Your task to perform on an android device: Go to battery settings Image 0: 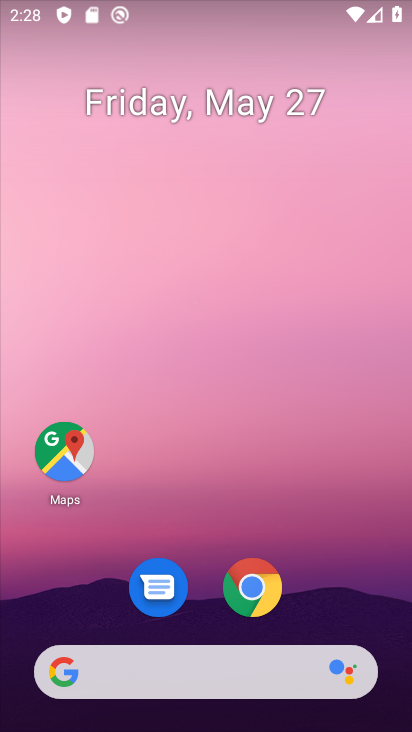
Step 0: press home button
Your task to perform on an android device: Go to battery settings Image 1: 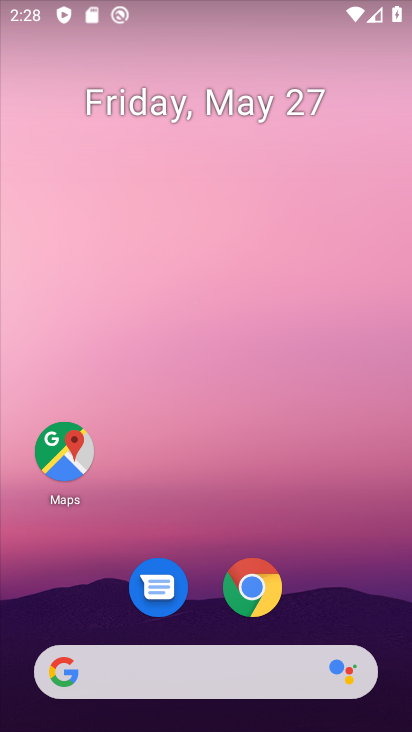
Step 1: drag from (350, 614) to (372, 216)
Your task to perform on an android device: Go to battery settings Image 2: 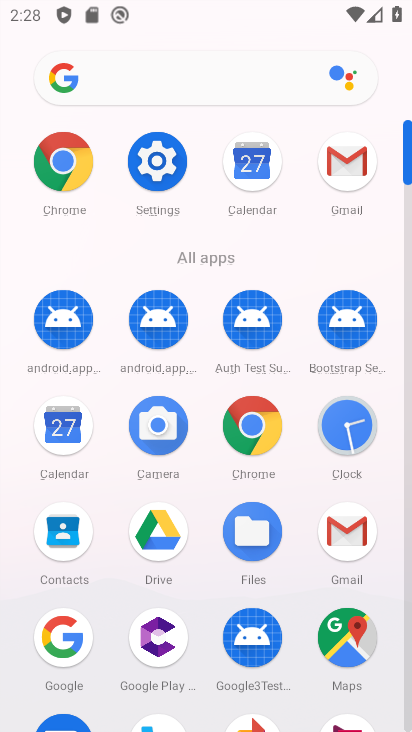
Step 2: click (151, 157)
Your task to perform on an android device: Go to battery settings Image 3: 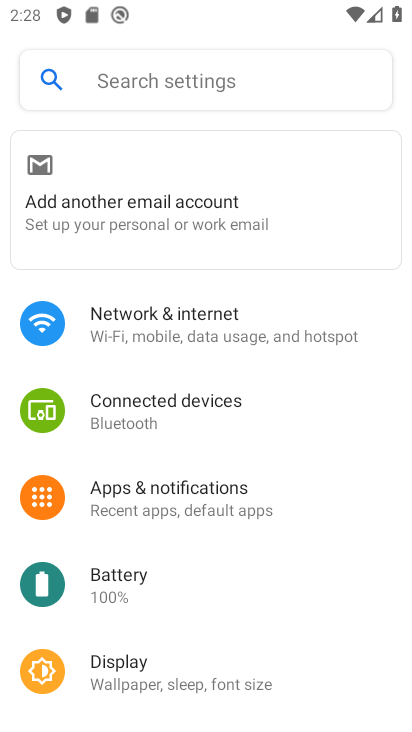
Step 3: click (113, 587)
Your task to perform on an android device: Go to battery settings Image 4: 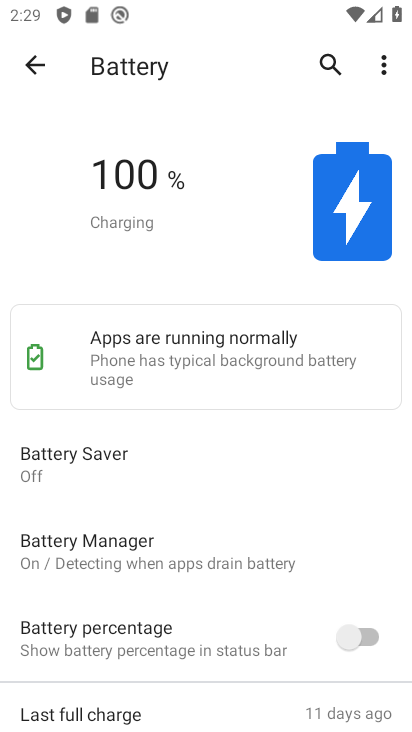
Step 4: task complete